Your task to perform on an android device: change notifications settings Image 0: 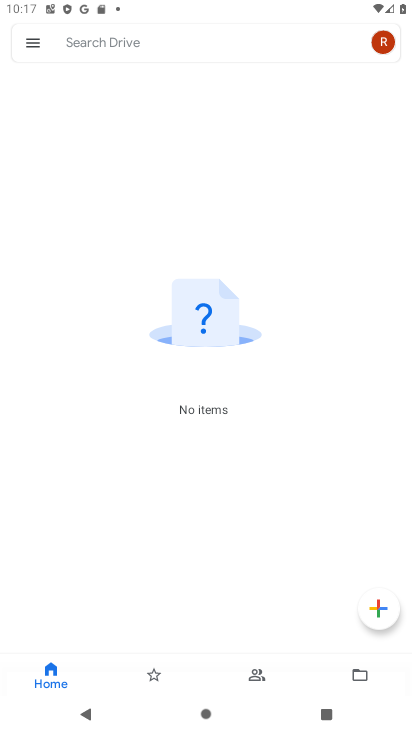
Step 0: press home button
Your task to perform on an android device: change notifications settings Image 1: 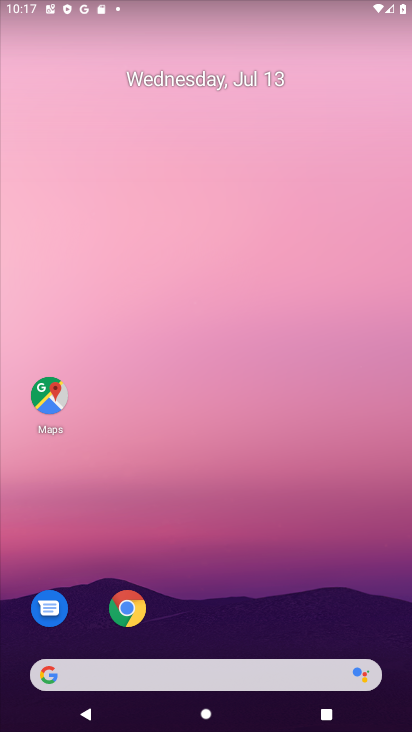
Step 1: drag from (200, 675) to (164, 153)
Your task to perform on an android device: change notifications settings Image 2: 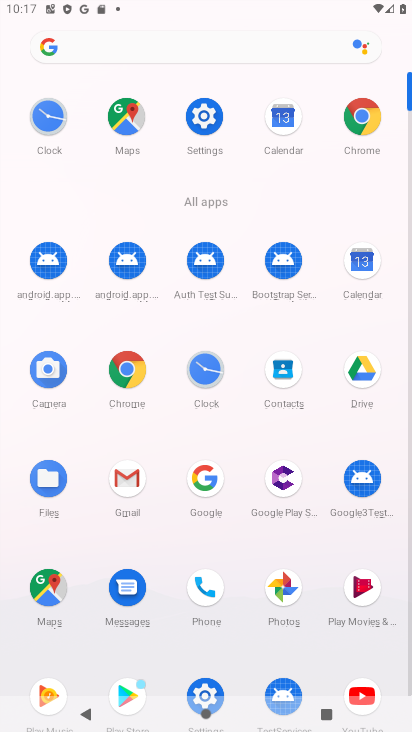
Step 2: click (203, 118)
Your task to perform on an android device: change notifications settings Image 3: 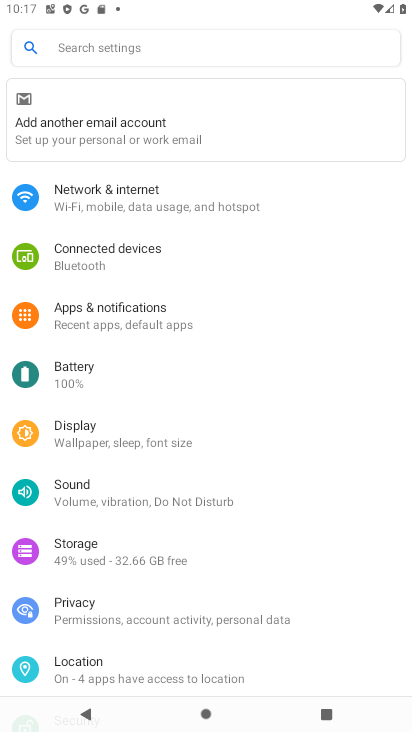
Step 3: click (82, 307)
Your task to perform on an android device: change notifications settings Image 4: 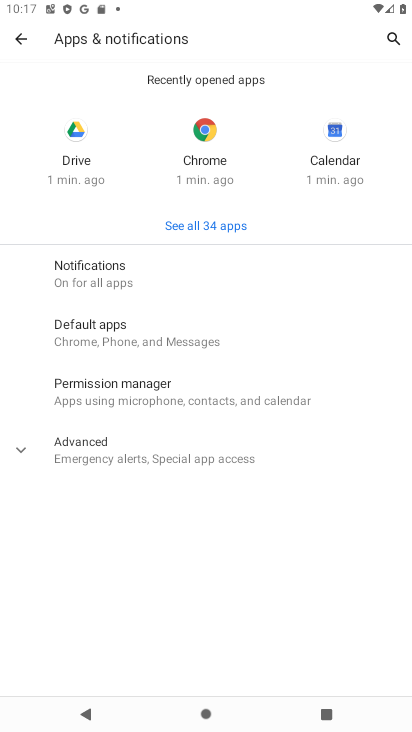
Step 4: click (91, 273)
Your task to perform on an android device: change notifications settings Image 5: 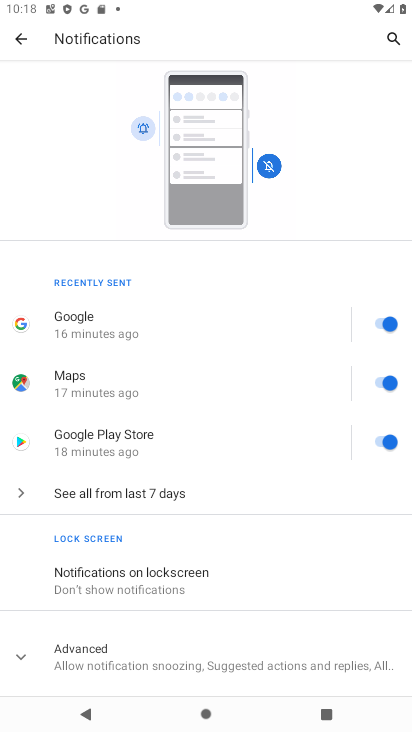
Step 5: click (147, 497)
Your task to perform on an android device: change notifications settings Image 6: 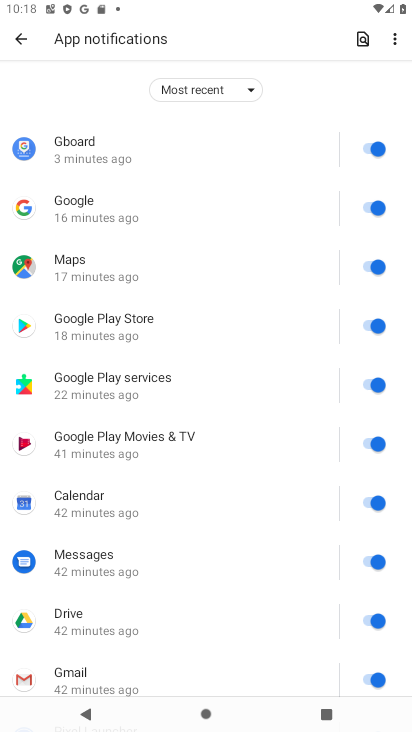
Step 6: click (252, 87)
Your task to perform on an android device: change notifications settings Image 7: 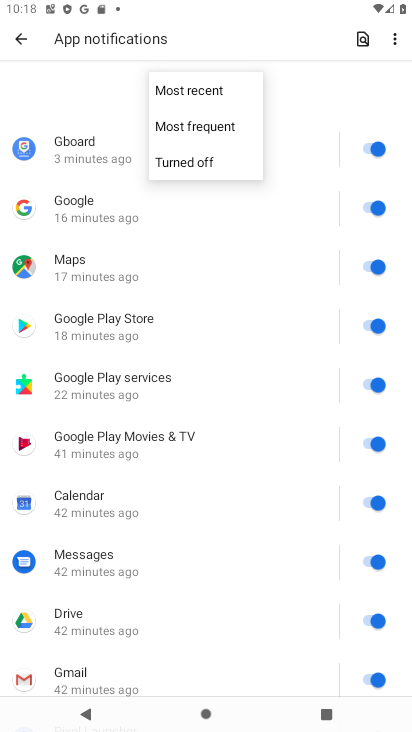
Step 7: click (206, 158)
Your task to perform on an android device: change notifications settings Image 8: 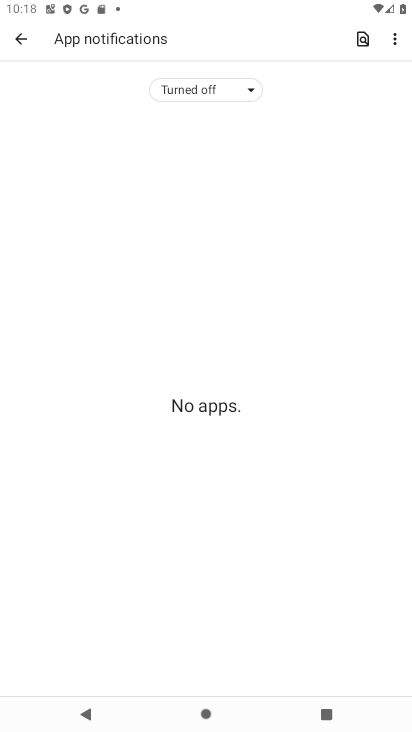
Step 8: press back button
Your task to perform on an android device: change notifications settings Image 9: 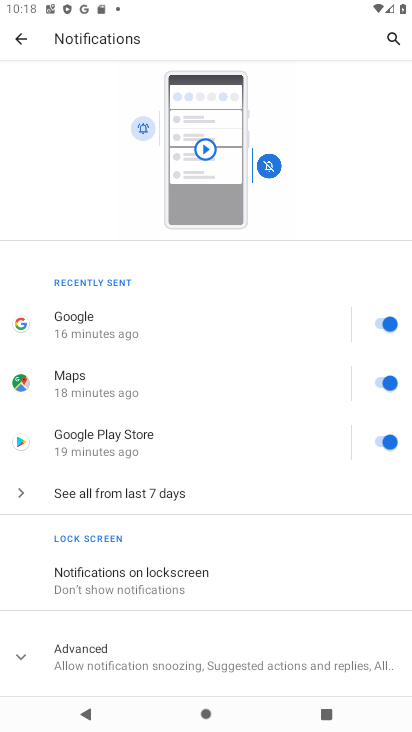
Step 9: click (143, 666)
Your task to perform on an android device: change notifications settings Image 10: 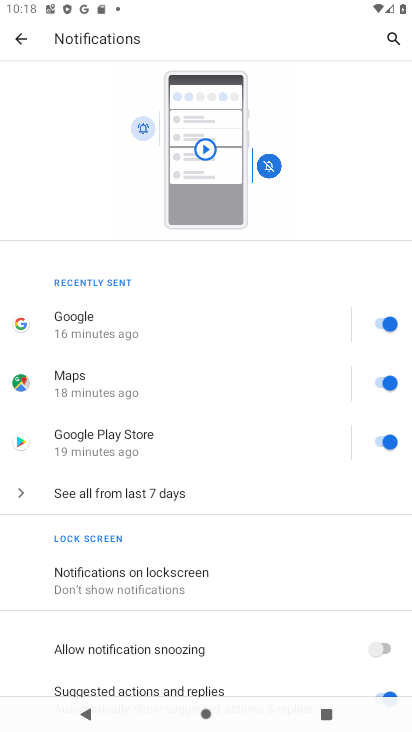
Step 10: task complete